Your task to perform on an android device: Go to internet settings Image 0: 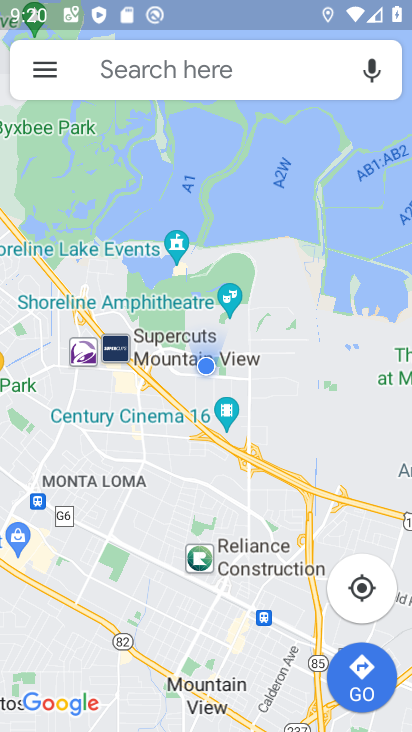
Step 0: press home button
Your task to perform on an android device: Go to internet settings Image 1: 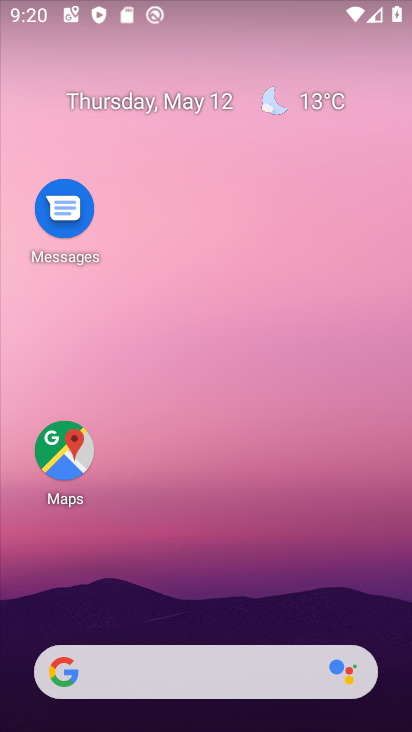
Step 1: drag from (182, 644) to (212, 16)
Your task to perform on an android device: Go to internet settings Image 2: 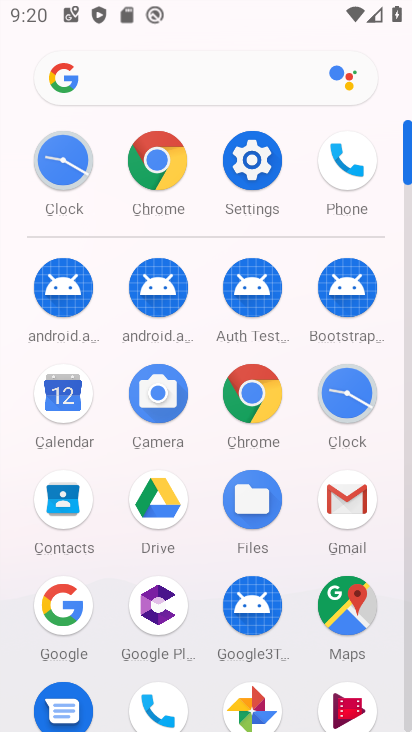
Step 2: click (263, 171)
Your task to perform on an android device: Go to internet settings Image 3: 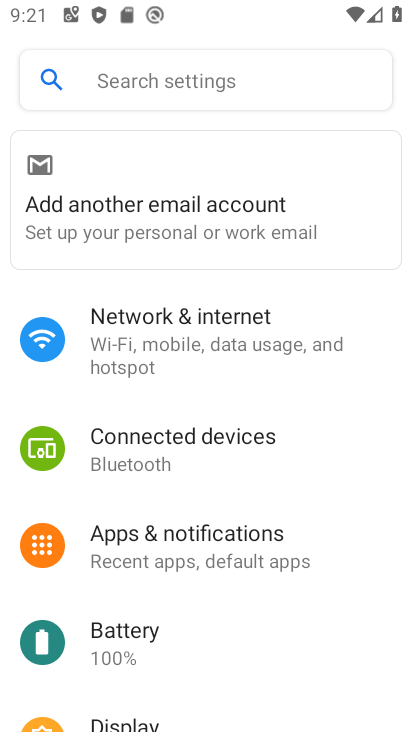
Step 3: click (174, 320)
Your task to perform on an android device: Go to internet settings Image 4: 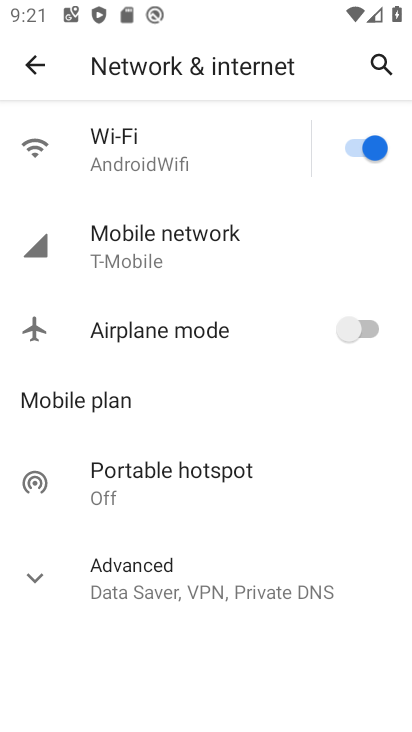
Step 4: click (136, 248)
Your task to perform on an android device: Go to internet settings Image 5: 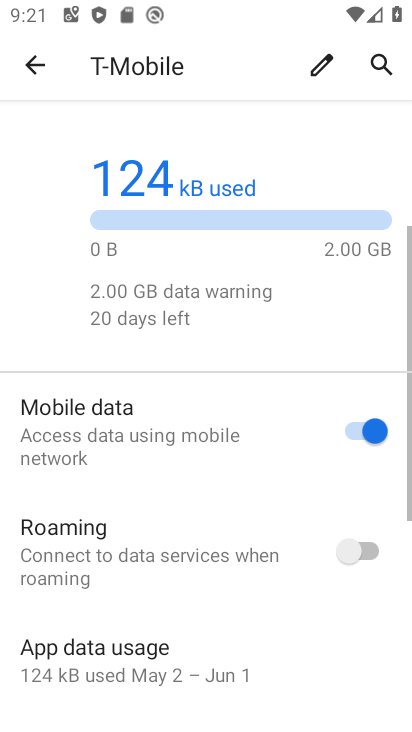
Step 5: task complete